Your task to perform on an android device: Open calendar and show me the fourth week of next month Image 0: 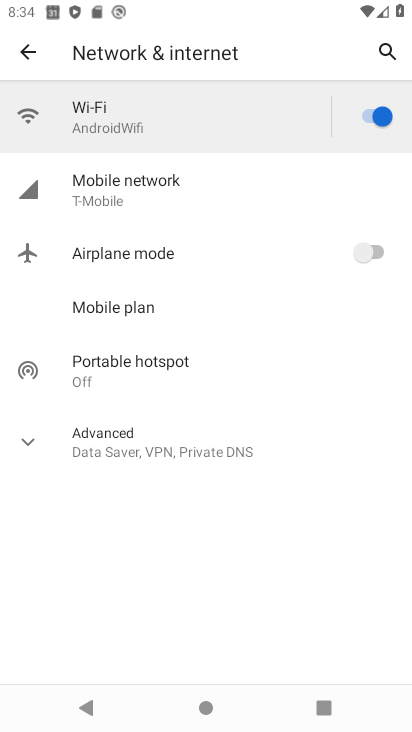
Step 0: press home button
Your task to perform on an android device: Open calendar and show me the fourth week of next month Image 1: 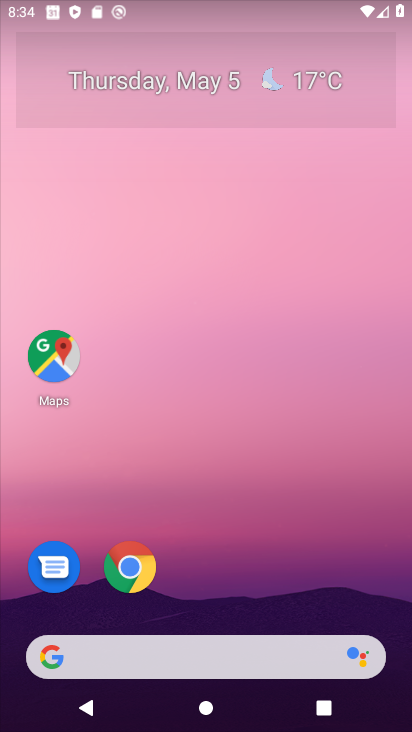
Step 1: drag from (230, 700) to (217, 145)
Your task to perform on an android device: Open calendar and show me the fourth week of next month Image 2: 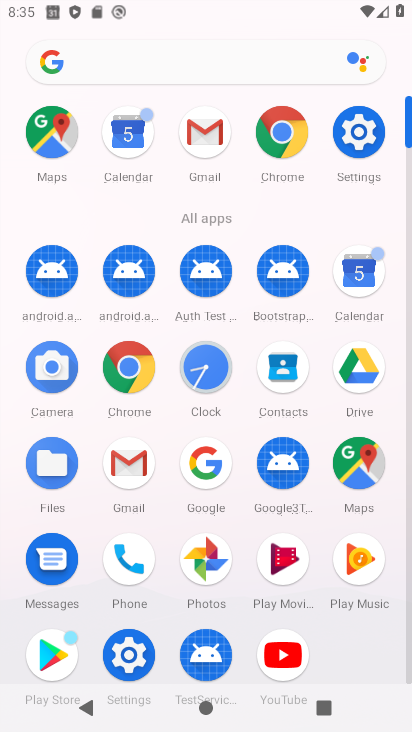
Step 2: click (353, 275)
Your task to perform on an android device: Open calendar and show me the fourth week of next month Image 3: 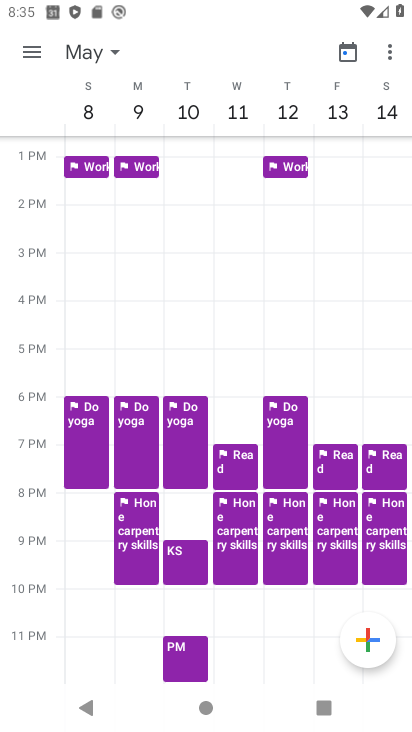
Step 3: click (114, 50)
Your task to perform on an android device: Open calendar and show me the fourth week of next month Image 4: 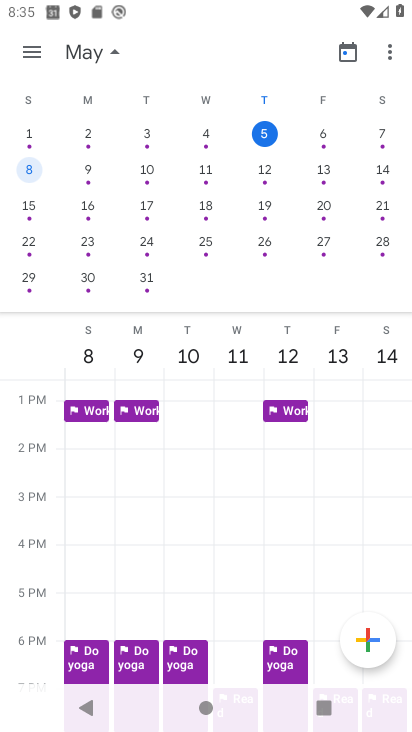
Step 4: drag from (360, 200) to (19, 185)
Your task to perform on an android device: Open calendar and show me the fourth week of next month Image 5: 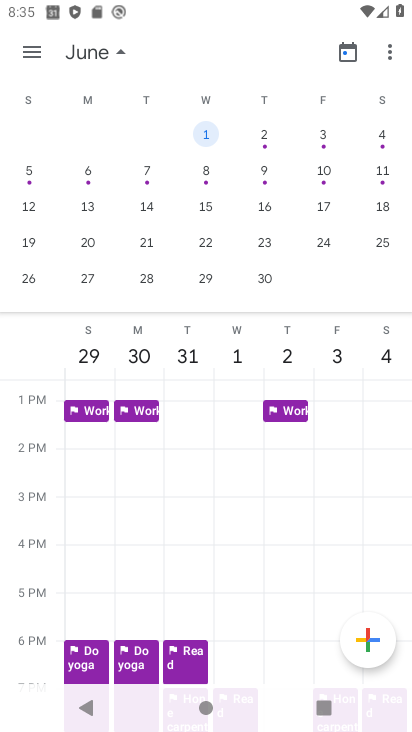
Step 5: click (85, 274)
Your task to perform on an android device: Open calendar and show me the fourth week of next month Image 6: 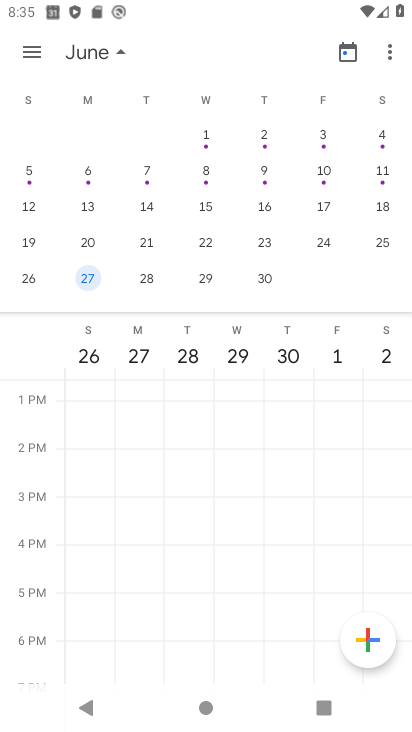
Step 6: task complete